Your task to perform on an android device: Turn off the flashlight Image 0: 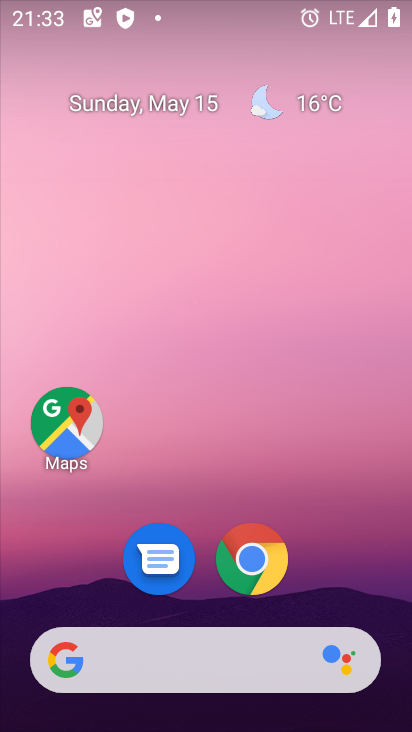
Step 0: drag from (280, 455) to (287, 39)
Your task to perform on an android device: Turn off the flashlight Image 1: 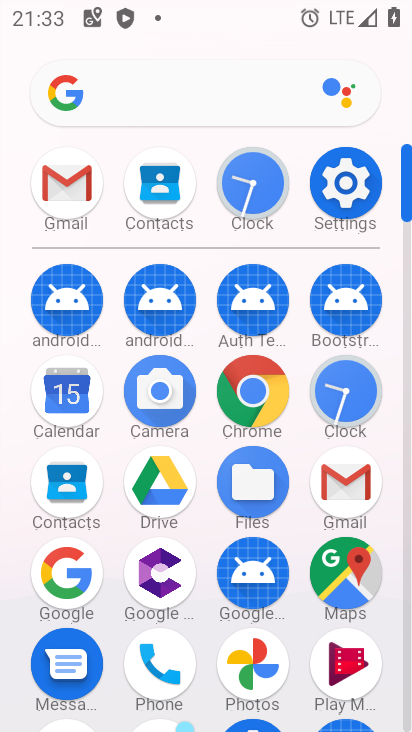
Step 1: click (343, 180)
Your task to perform on an android device: Turn off the flashlight Image 2: 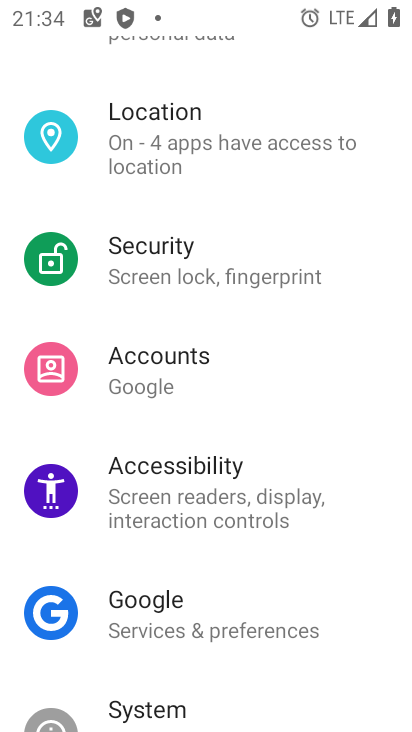
Step 2: drag from (251, 615) to (182, 249)
Your task to perform on an android device: Turn off the flashlight Image 3: 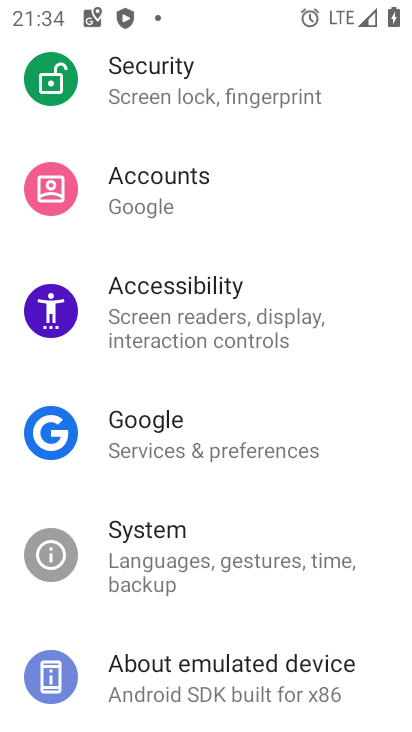
Step 3: click (173, 350)
Your task to perform on an android device: Turn off the flashlight Image 4: 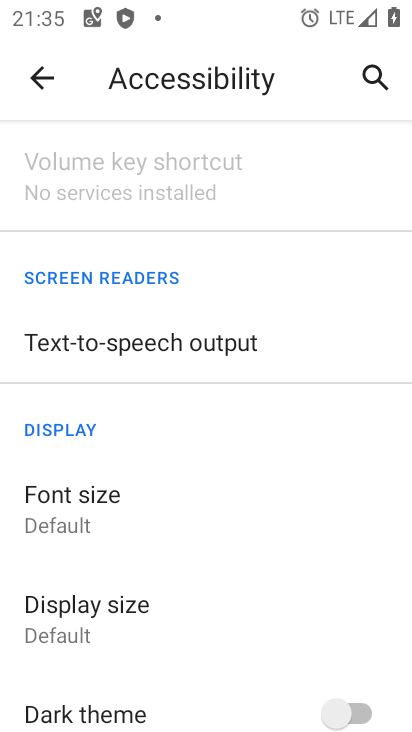
Step 4: click (42, 80)
Your task to perform on an android device: Turn off the flashlight Image 5: 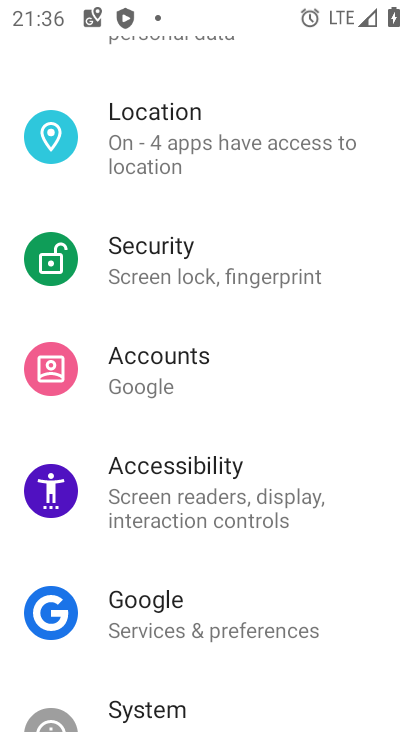
Step 5: task complete